Your task to perform on an android device: Open CNN.com Image 0: 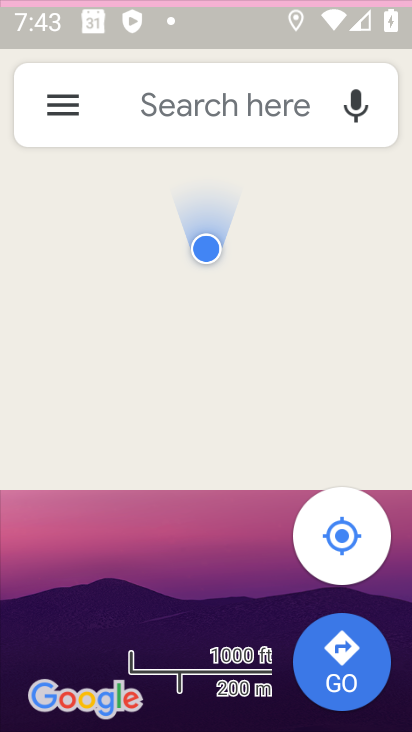
Step 0: drag from (255, 718) to (160, 74)
Your task to perform on an android device: Open CNN.com Image 1: 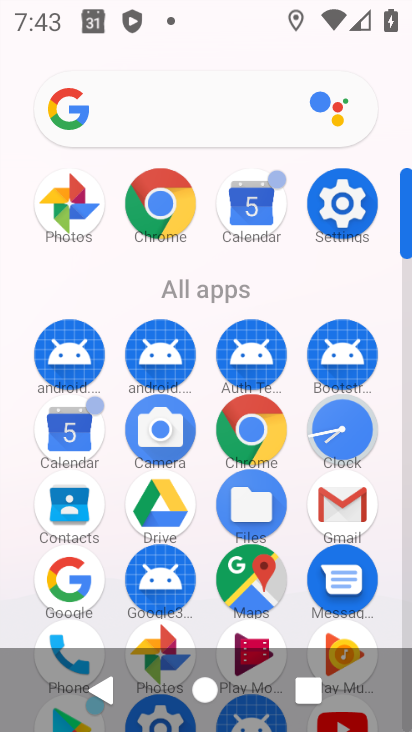
Step 1: press home button
Your task to perform on an android device: Open CNN.com Image 2: 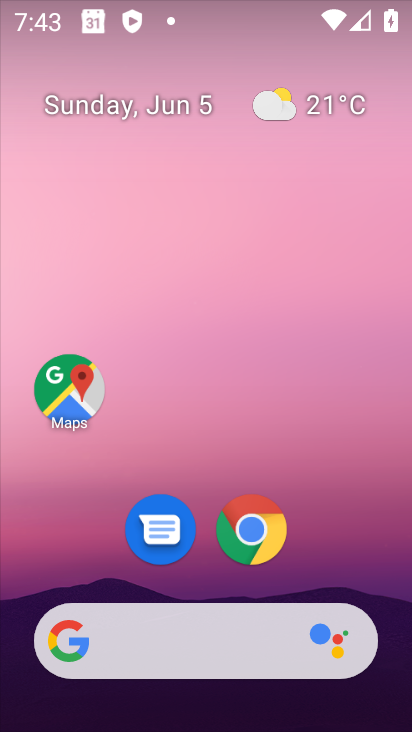
Step 2: click (244, 640)
Your task to perform on an android device: Open CNN.com Image 3: 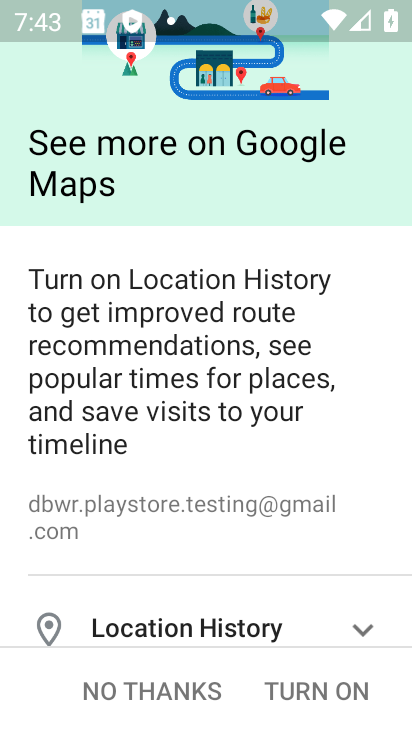
Step 3: type "cnn.com"
Your task to perform on an android device: Open CNN.com Image 4: 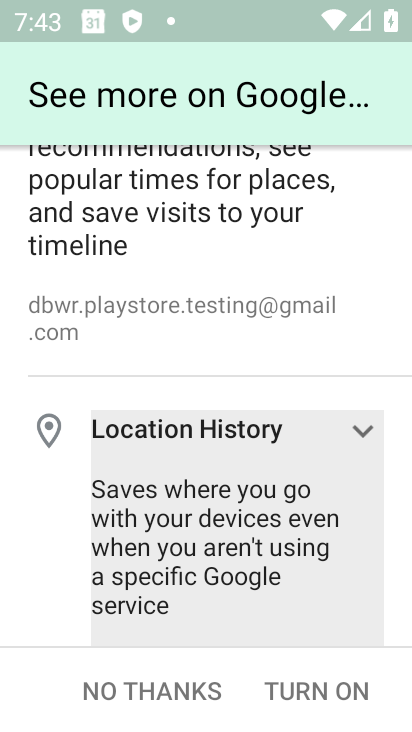
Step 4: click (127, 697)
Your task to perform on an android device: Open CNN.com Image 5: 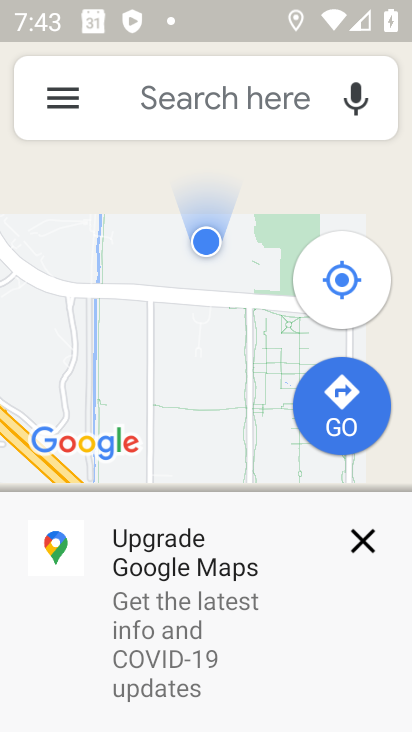
Step 5: press home button
Your task to perform on an android device: Open CNN.com Image 6: 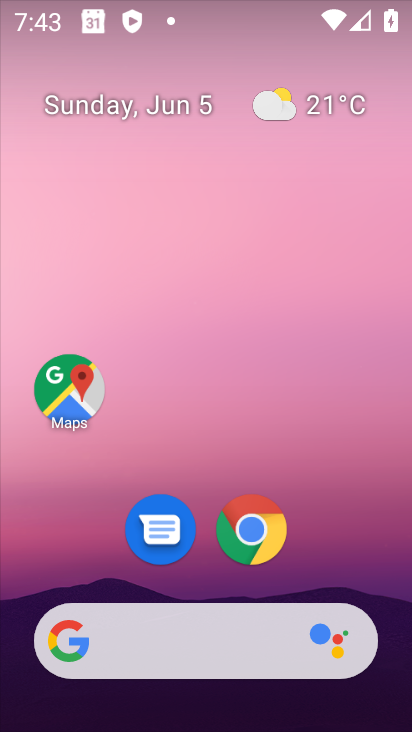
Step 6: click (266, 641)
Your task to perform on an android device: Open CNN.com Image 7: 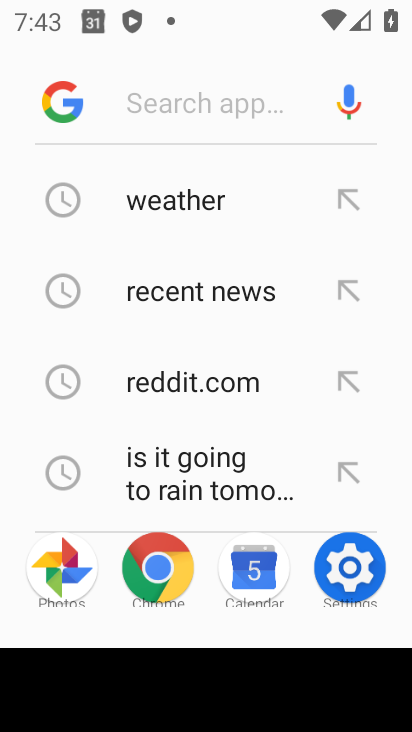
Step 7: type "cnn.com"
Your task to perform on an android device: Open CNN.com Image 8: 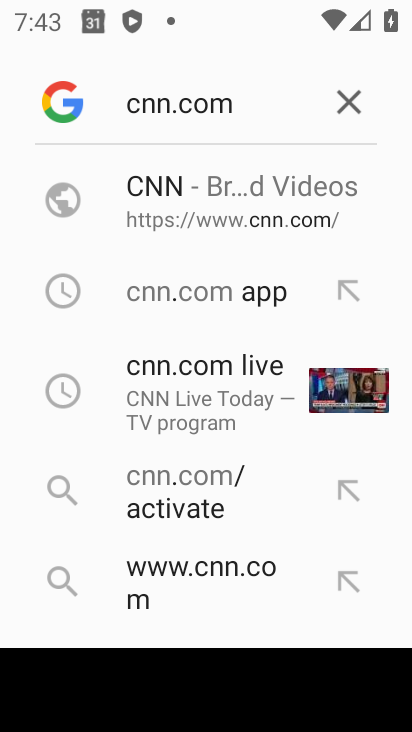
Step 8: click (242, 205)
Your task to perform on an android device: Open CNN.com Image 9: 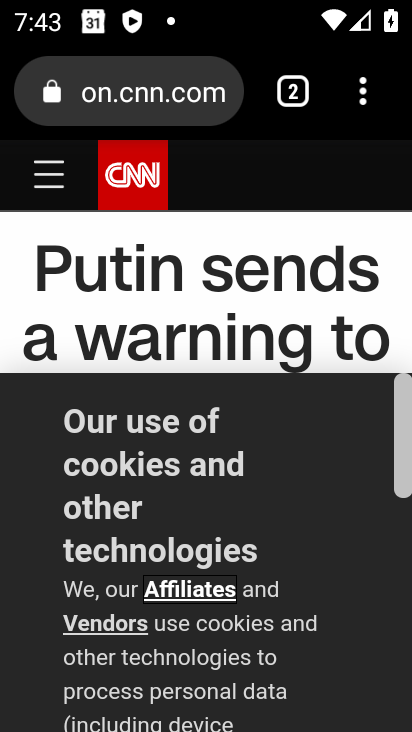
Step 9: task complete